Your task to perform on an android device: Go to notification settings Image 0: 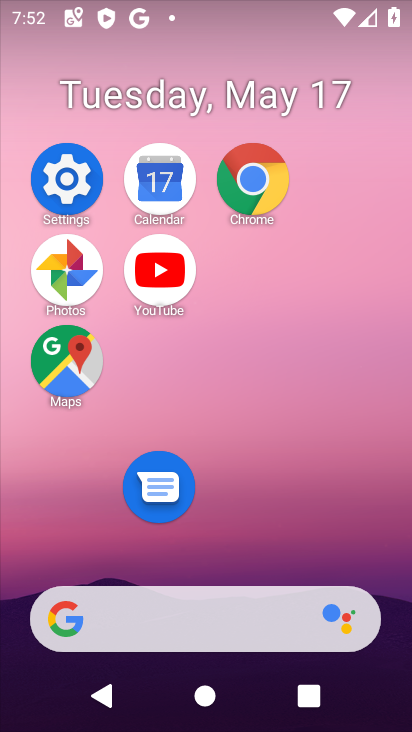
Step 0: click (91, 189)
Your task to perform on an android device: Go to notification settings Image 1: 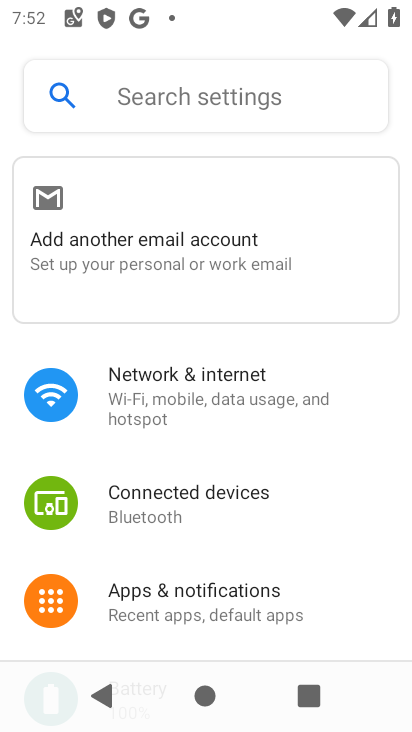
Step 1: click (250, 591)
Your task to perform on an android device: Go to notification settings Image 2: 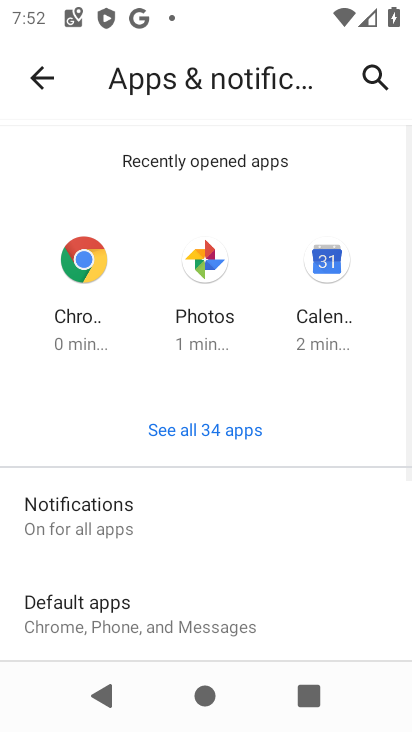
Step 2: task complete